Your task to perform on an android device: open chrome privacy settings Image 0: 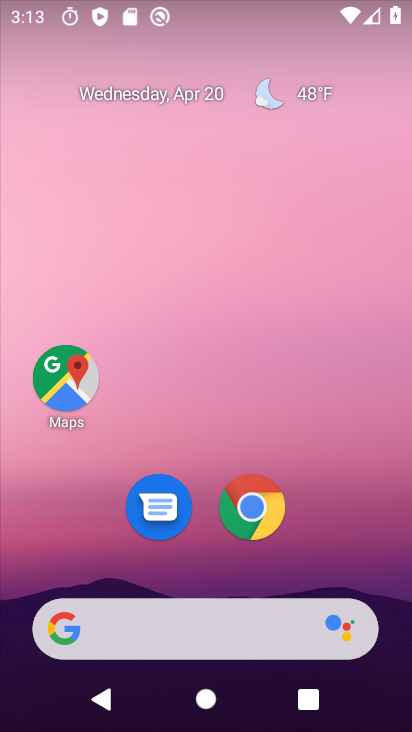
Step 0: click (219, 192)
Your task to perform on an android device: open chrome privacy settings Image 1: 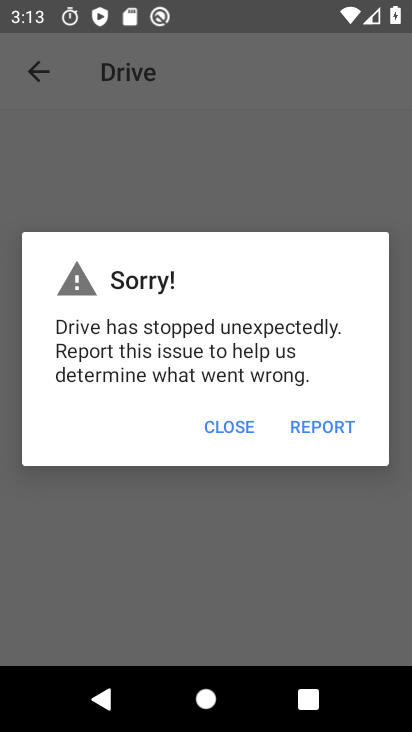
Step 1: press home button
Your task to perform on an android device: open chrome privacy settings Image 2: 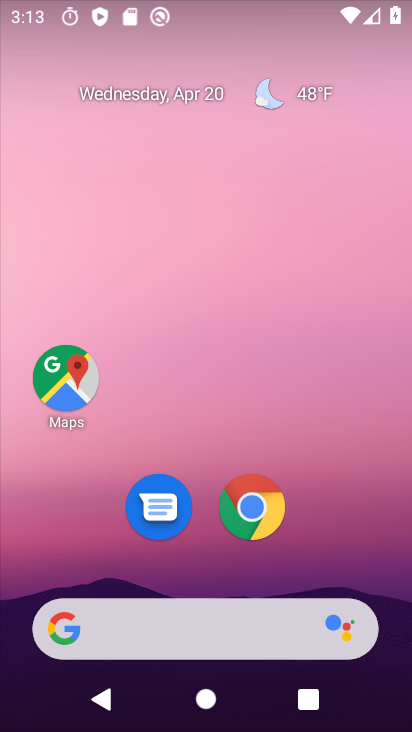
Step 2: drag from (208, 617) to (71, 5)
Your task to perform on an android device: open chrome privacy settings Image 3: 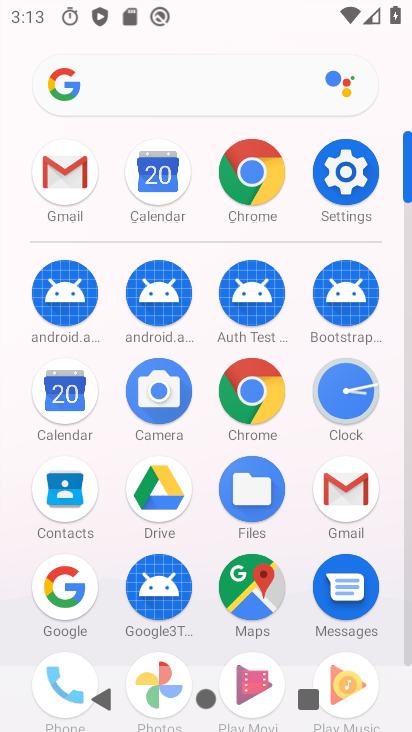
Step 3: click (237, 185)
Your task to perform on an android device: open chrome privacy settings Image 4: 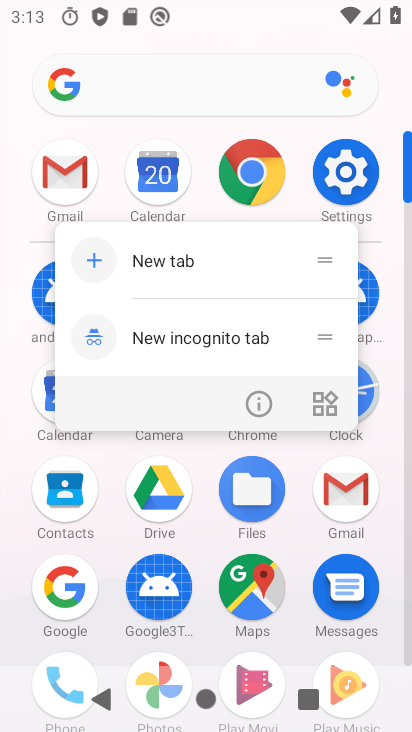
Step 4: click (236, 198)
Your task to perform on an android device: open chrome privacy settings Image 5: 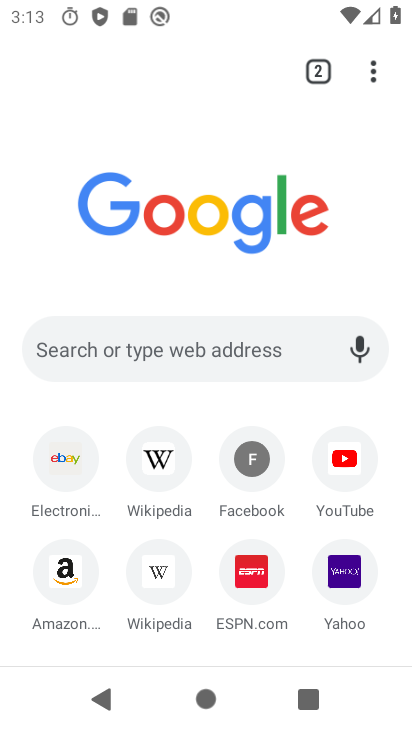
Step 5: drag from (367, 83) to (158, 507)
Your task to perform on an android device: open chrome privacy settings Image 6: 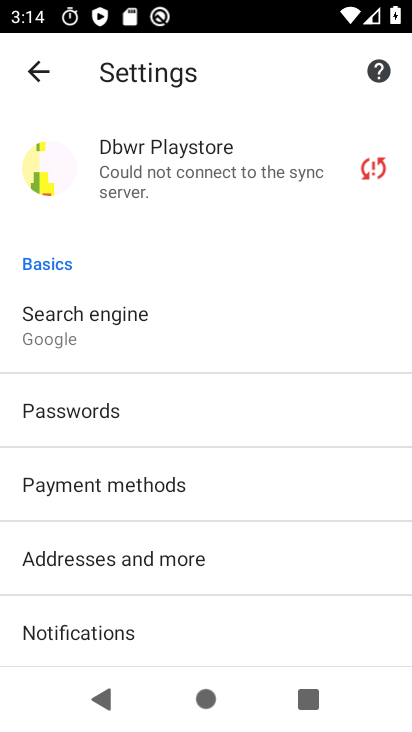
Step 6: drag from (170, 604) to (178, 220)
Your task to perform on an android device: open chrome privacy settings Image 7: 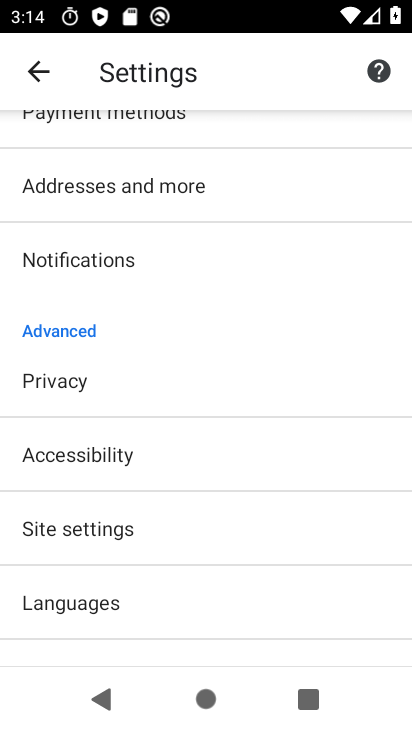
Step 7: click (93, 384)
Your task to perform on an android device: open chrome privacy settings Image 8: 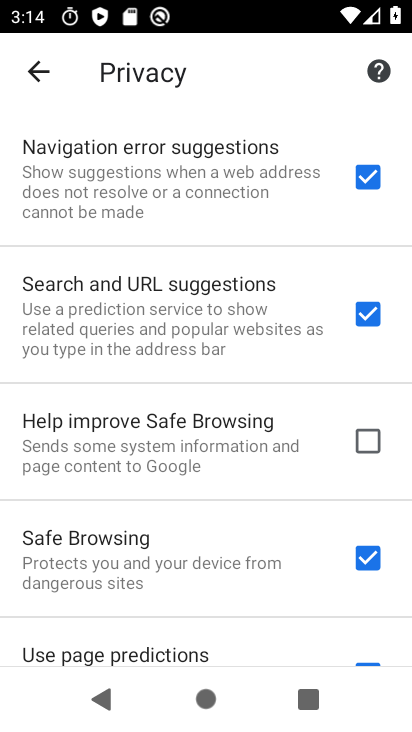
Step 8: task complete